Your task to perform on an android device: make emails show in primary in the gmail app Image 0: 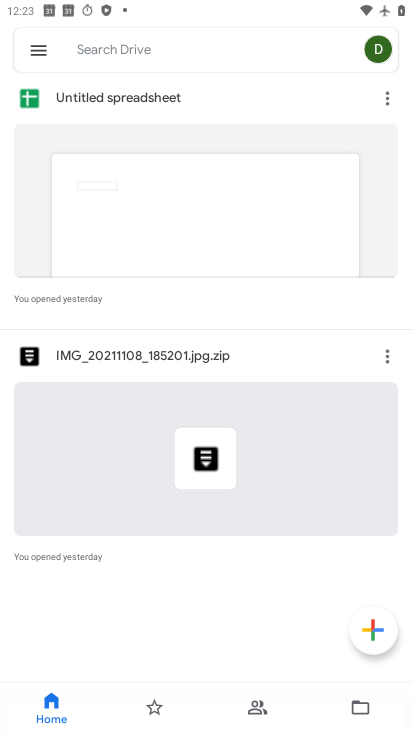
Step 0: press home button
Your task to perform on an android device: make emails show in primary in the gmail app Image 1: 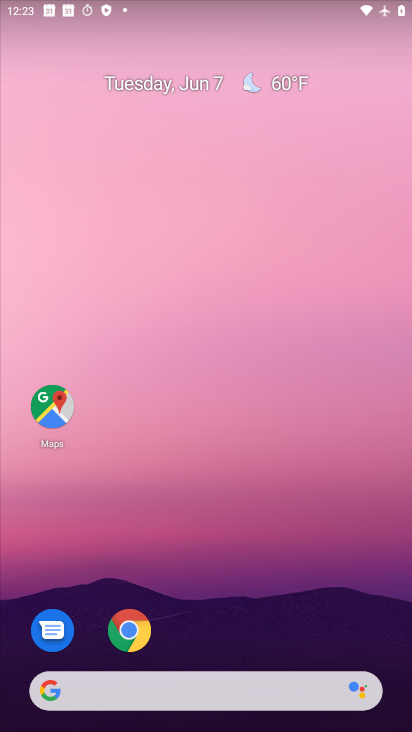
Step 1: drag from (376, 610) to (232, 32)
Your task to perform on an android device: make emails show in primary in the gmail app Image 2: 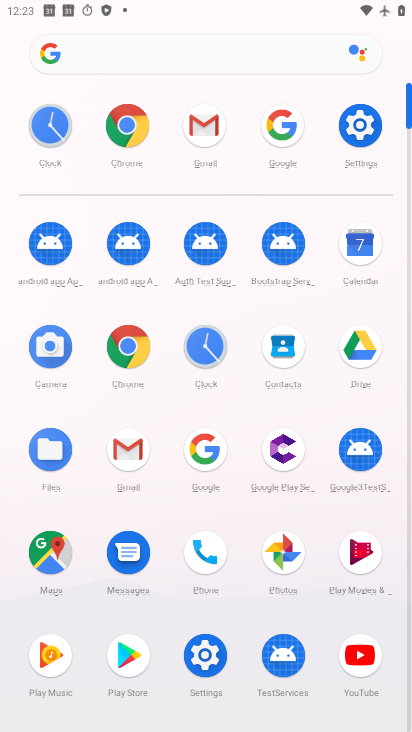
Step 2: click (134, 470)
Your task to perform on an android device: make emails show in primary in the gmail app Image 3: 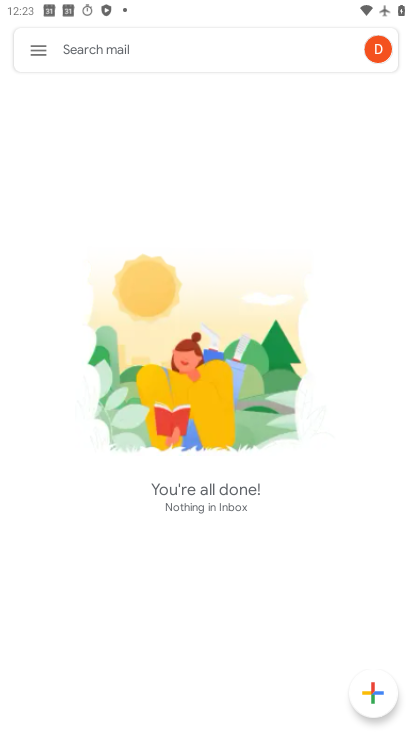
Step 3: task complete